Your task to perform on an android device: Open Google Chrome and click the shortcut for Amazon.com Image 0: 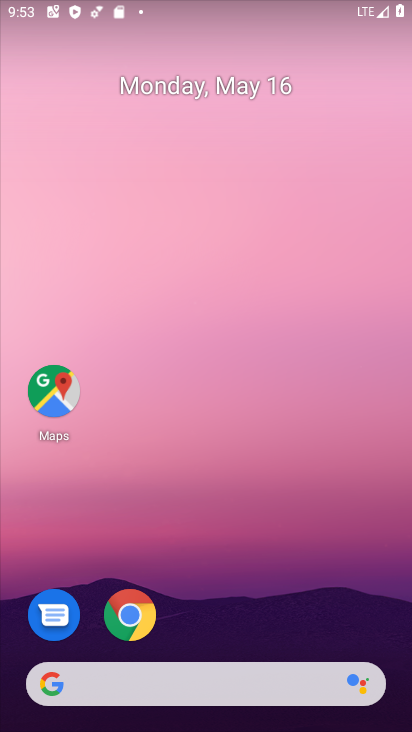
Step 0: drag from (252, 474) to (285, 111)
Your task to perform on an android device: Open Google Chrome and click the shortcut for Amazon.com Image 1: 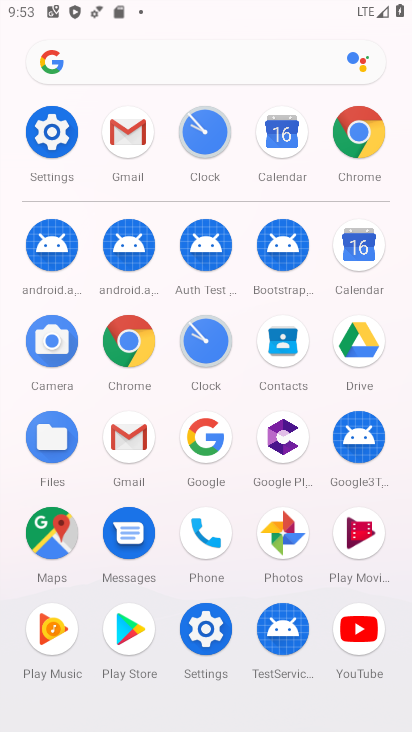
Step 1: click (125, 356)
Your task to perform on an android device: Open Google Chrome and click the shortcut for Amazon.com Image 2: 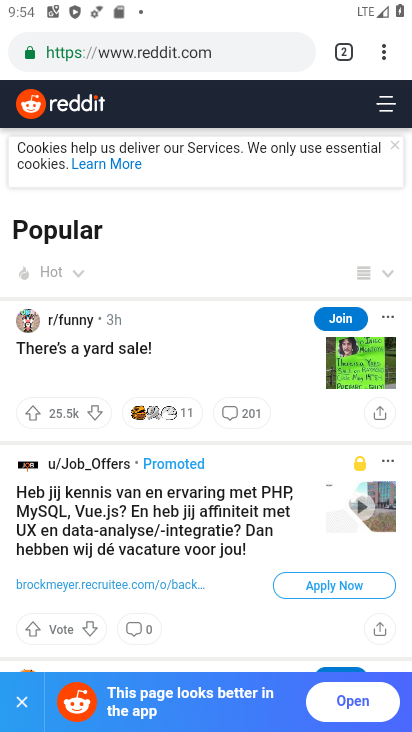
Step 2: drag from (220, 92) to (151, 349)
Your task to perform on an android device: Open Google Chrome and click the shortcut for Amazon.com Image 3: 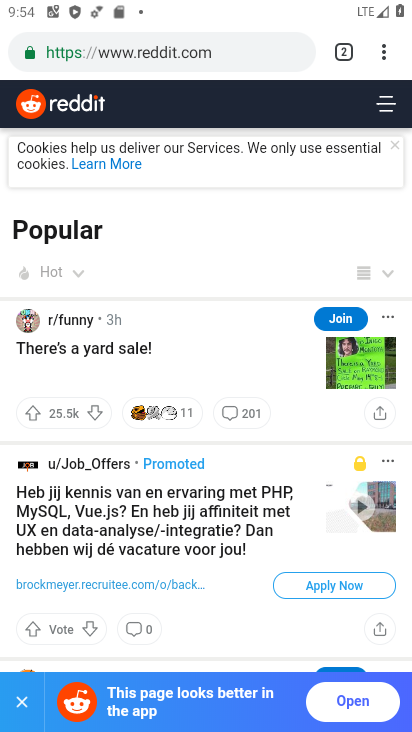
Step 3: drag from (349, 50) to (262, 446)
Your task to perform on an android device: Open Google Chrome and click the shortcut for Amazon.com Image 4: 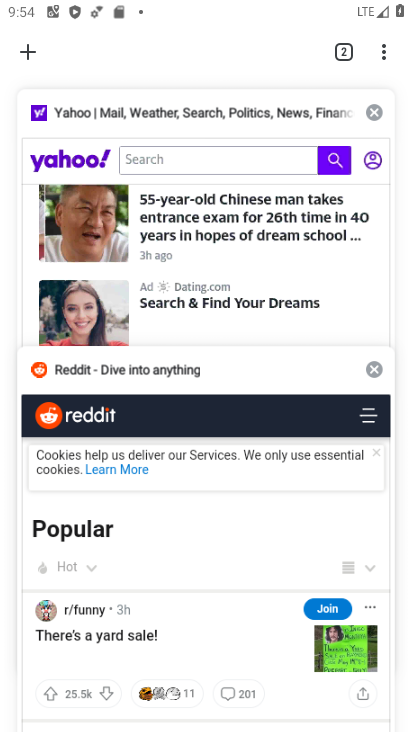
Step 4: click (30, 55)
Your task to perform on an android device: Open Google Chrome and click the shortcut for Amazon.com Image 5: 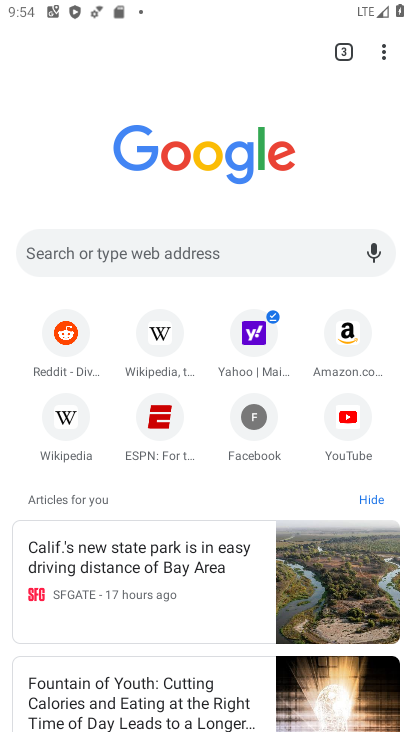
Step 5: click (338, 325)
Your task to perform on an android device: Open Google Chrome and click the shortcut for Amazon.com Image 6: 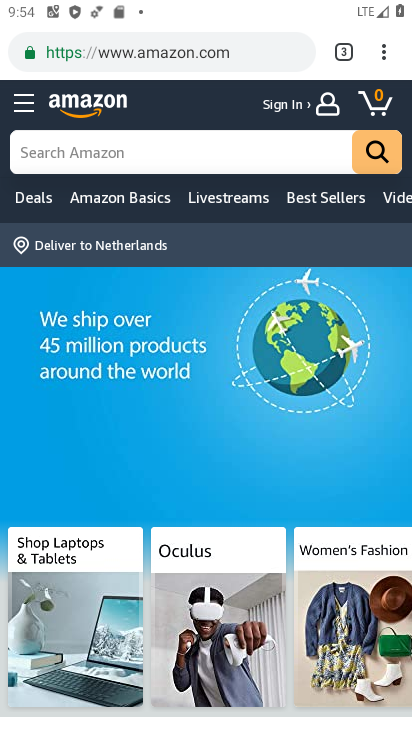
Step 6: task complete